Your task to perform on an android device: open chrome privacy settings Image 0: 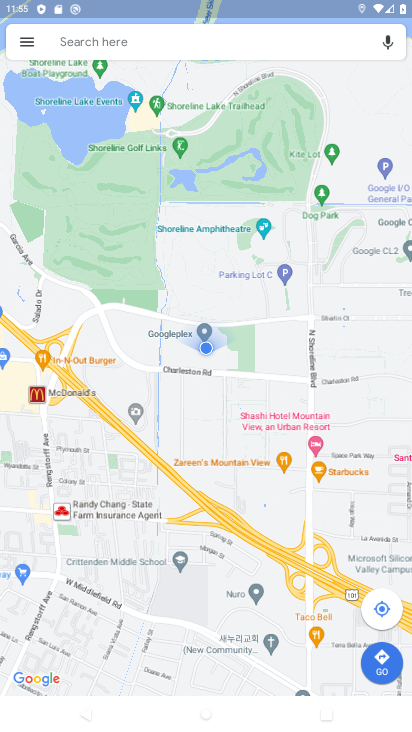
Step 0: press home button
Your task to perform on an android device: open chrome privacy settings Image 1: 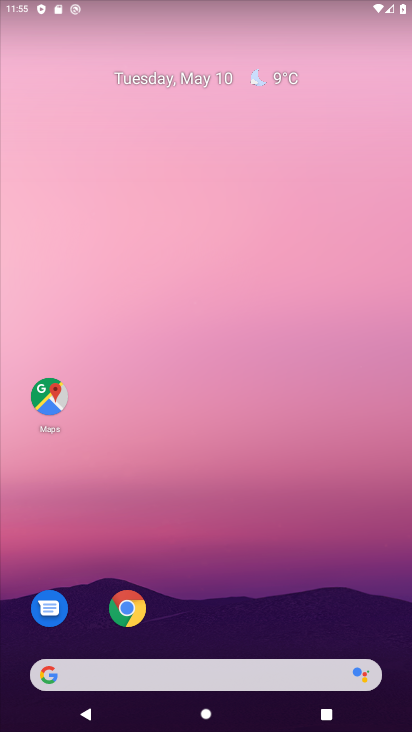
Step 1: drag from (254, 609) to (278, 382)
Your task to perform on an android device: open chrome privacy settings Image 2: 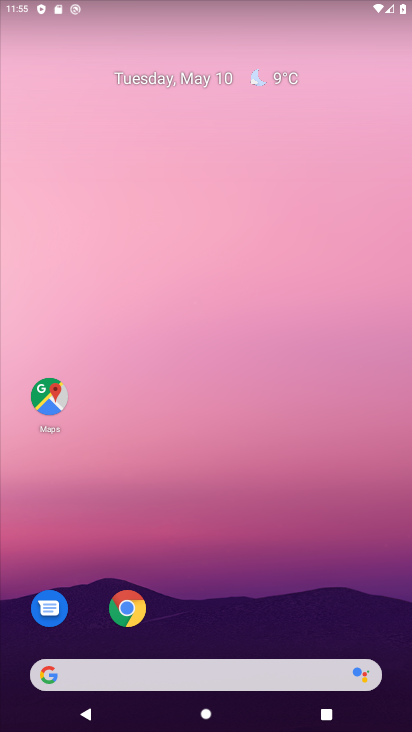
Step 2: drag from (260, 535) to (281, 238)
Your task to perform on an android device: open chrome privacy settings Image 3: 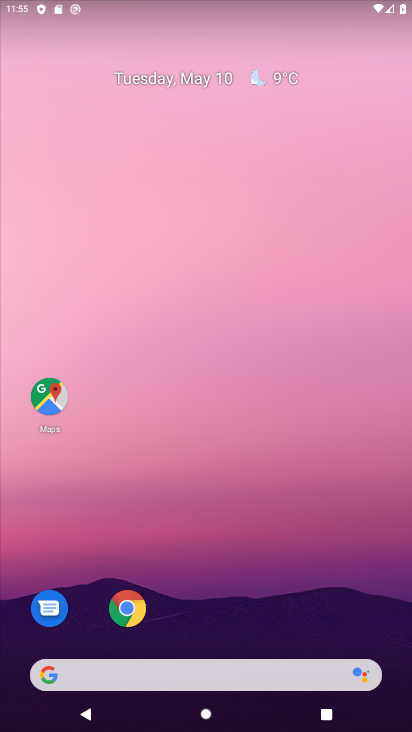
Step 3: drag from (296, 575) to (262, 198)
Your task to perform on an android device: open chrome privacy settings Image 4: 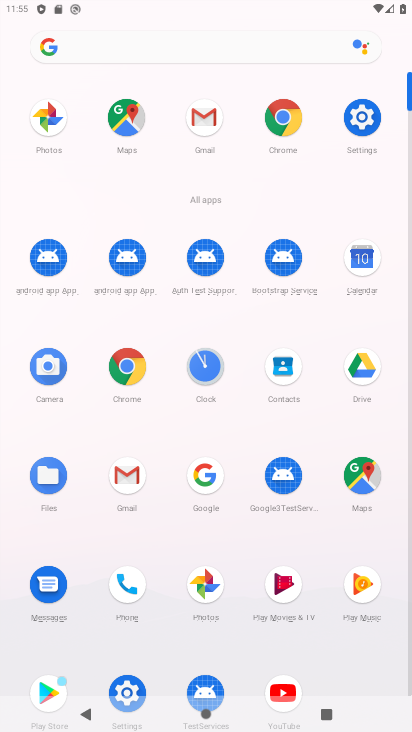
Step 4: click (286, 136)
Your task to perform on an android device: open chrome privacy settings Image 5: 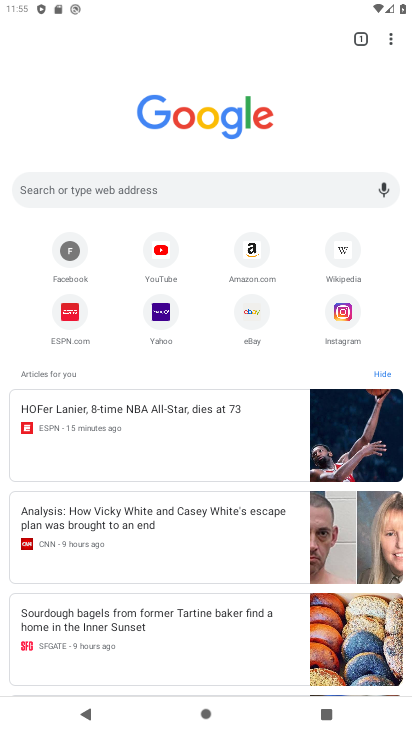
Step 5: click (387, 49)
Your task to perform on an android device: open chrome privacy settings Image 6: 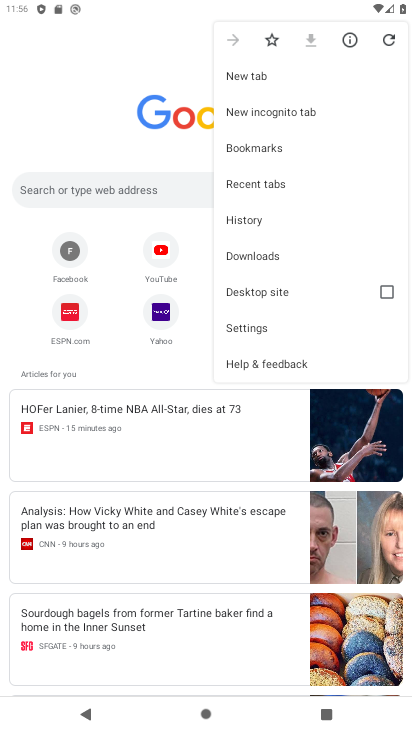
Step 6: click (292, 322)
Your task to perform on an android device: open chrome privacy settings Image 7: 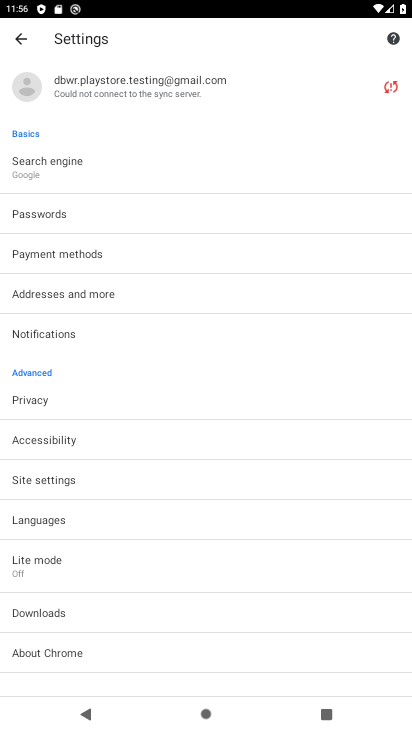
Step 7: click (60, 401)
Your task to perform on an android device: open chrome privacy settings Image 8: 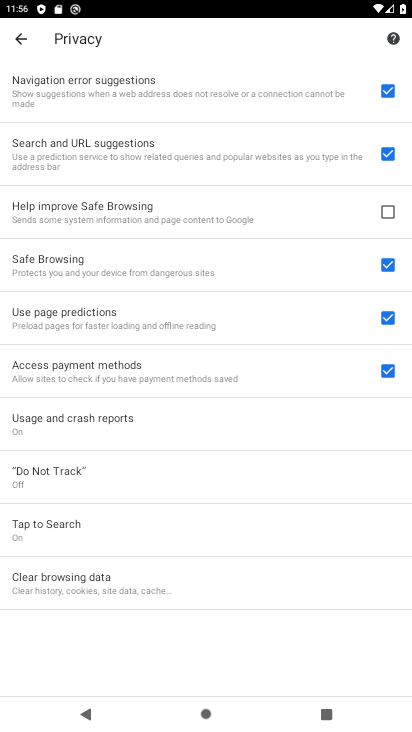
Step 8: task complete